Your task to perform on an android device: Open the web browser Image 0: 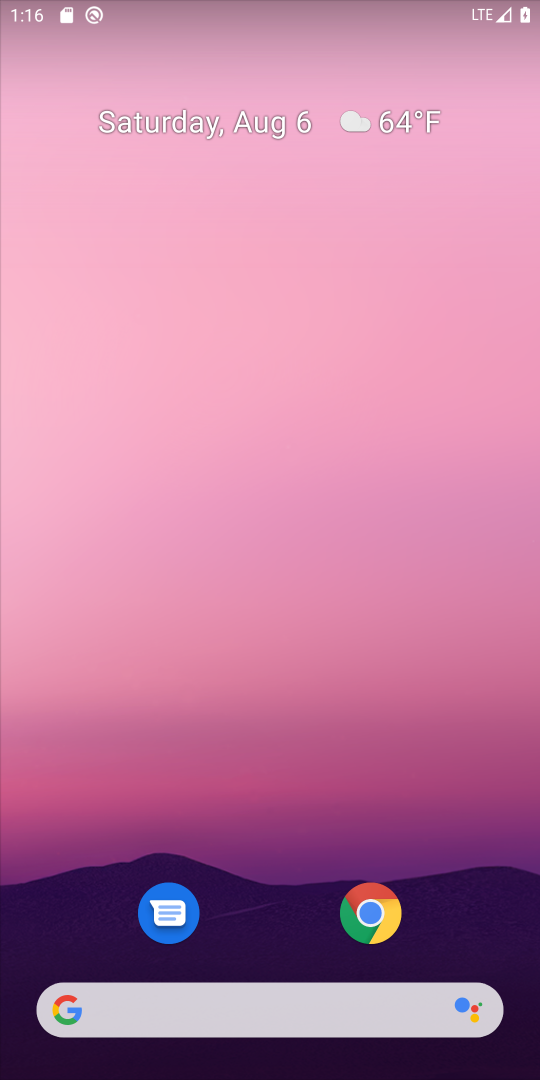
Step 0: drag from (259, 915) to (275, 387)
Your task to perform on an android device: Open the web browser Image 1: 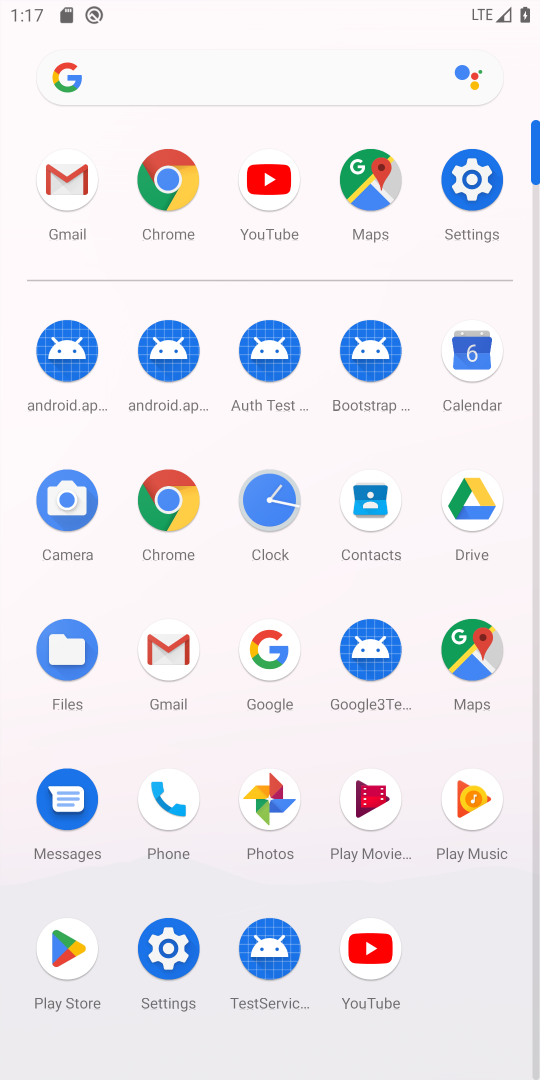
Step 1: click (151, 496)
Your task to perform on an android device: Open the web browser Image 2: 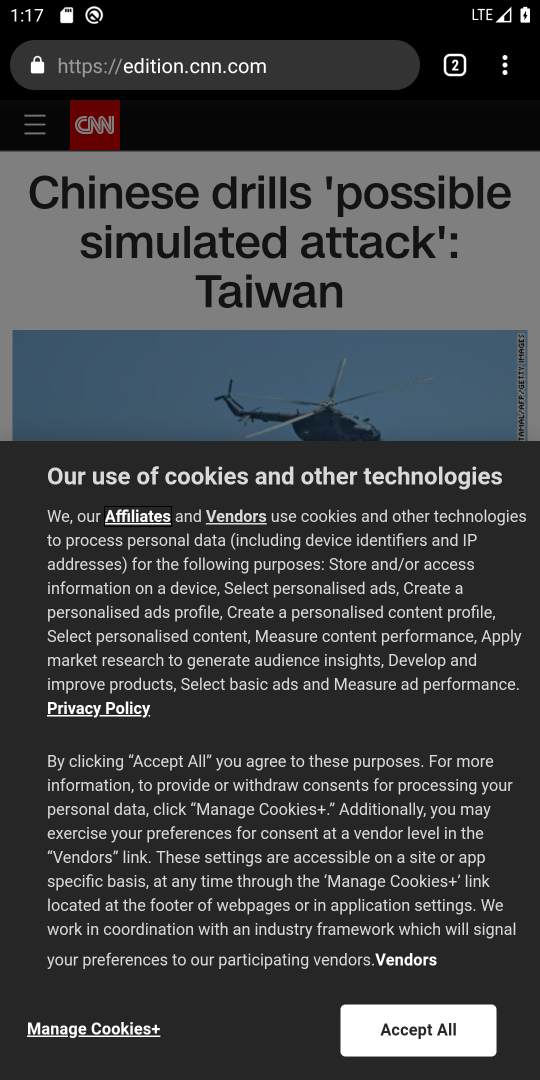
Step 2: task complete